Your task to perform on an android device: check google app version Image 0: 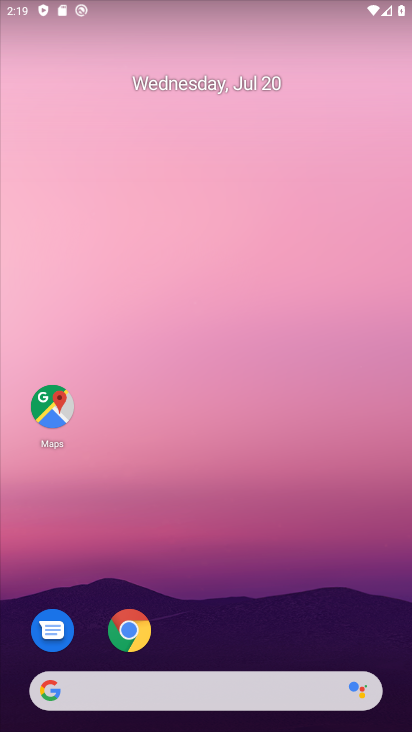
Step 0: click (227, 239)
Your task to perform on an android device: check google app version Image 1: 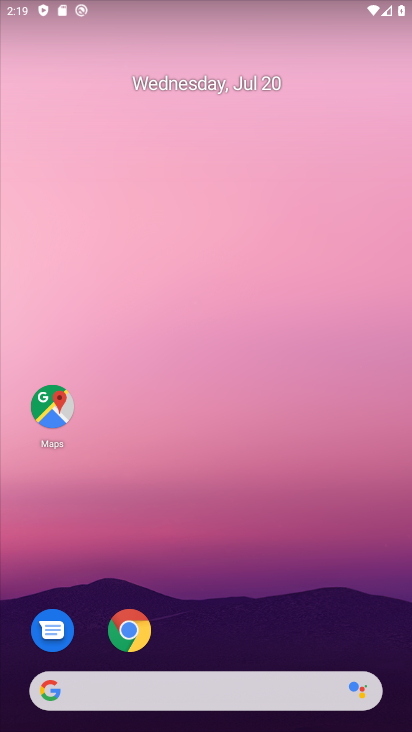
Step 1: drag from (283, 593) to (217, 183)
Your task to perform on an android device: check google app version Image 2: 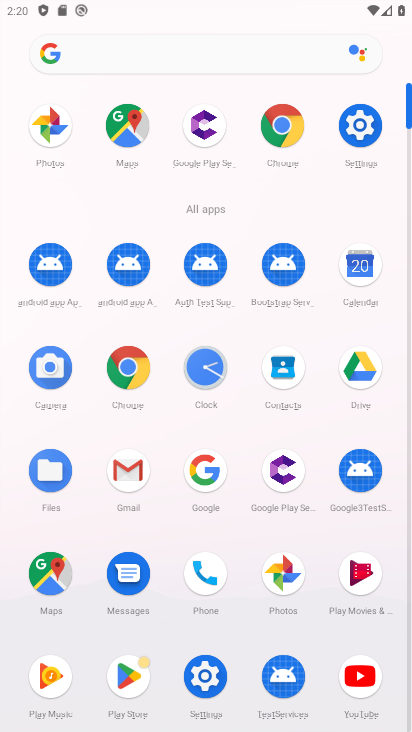
Step 2: click (211, 462)
Your task to perform on an android device: check google app version Image 3: 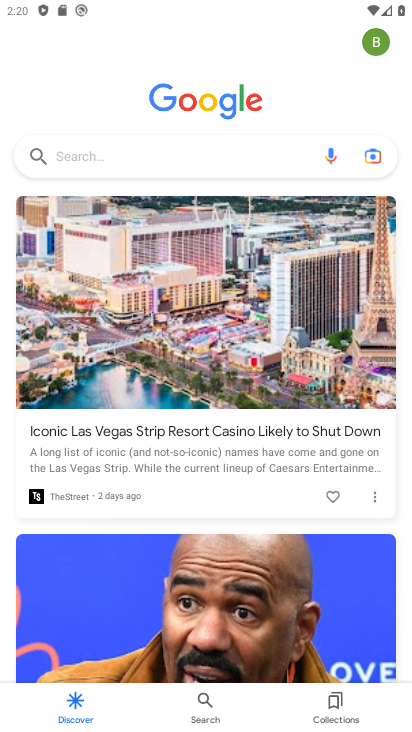
Step 3: click (374, 45)
Your task to perform on an android device: check google app version Image 4: 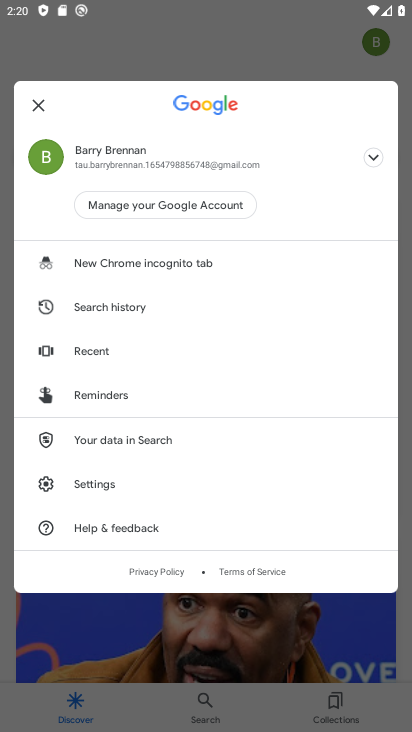
Step 4: click (122, 484)
Your task to perform on an android device: check google app version Image 5: 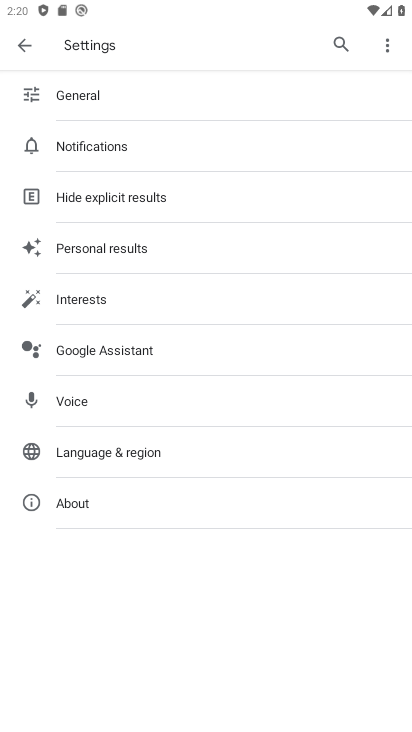
Step 5: click (132, 486)
Your task to perform on an android device: check google app version Image 6: 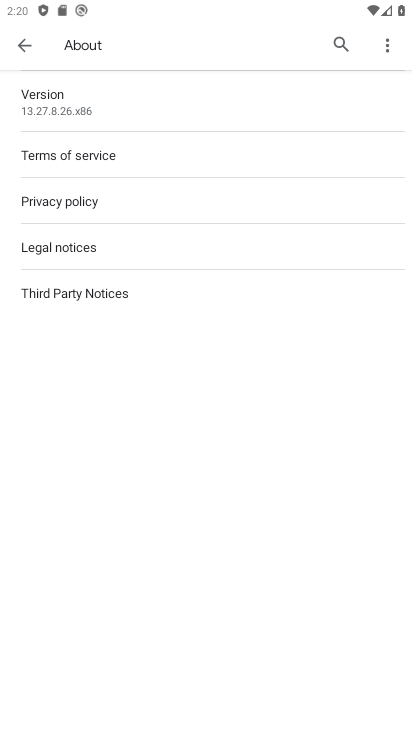
Step 6: click (123, 108)
Your task to perform on an android device: check google app version Image 7: 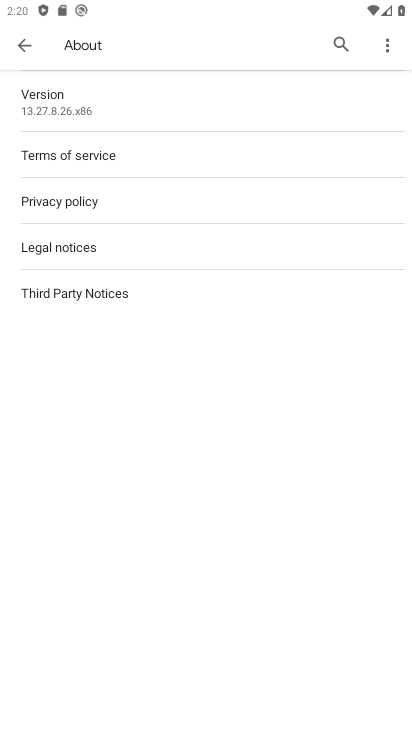
Step 7: click (302, 106)
Your task to perform on an android device: check google app version Image 8: 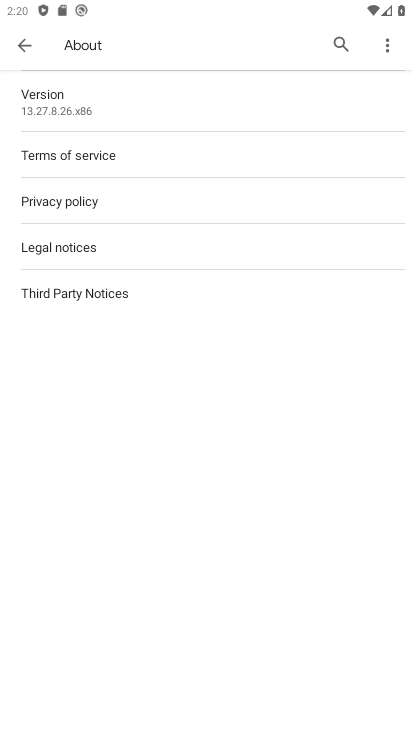
Step 8: task complete